Your task to perform on an android device: Open the Play Movies app and select the watchlist tab. Image 0: 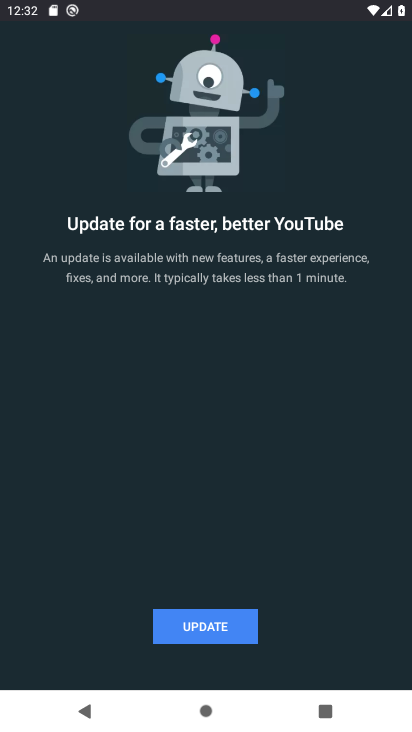
Step 0: drag from (188, 620) to (266, 169)
Your task to perform on an android device: Open the Play Movies app and select the watchlist tab. Image 1: 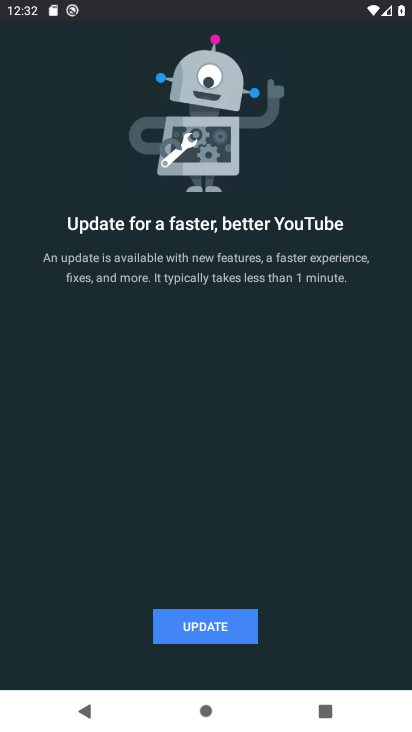
Step 1: press home button
Your task to perform on an android device: Open the Play Movies app and select the watchlist tab. Image 2: 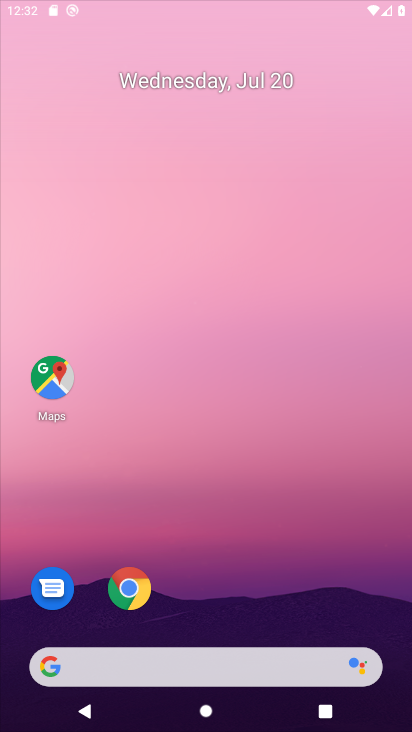
Step 2: drag from (302, 645) to (310, 360)
Your task to perform on an android device: Open the Play Movies app and select the watchlist tab. Image 3: 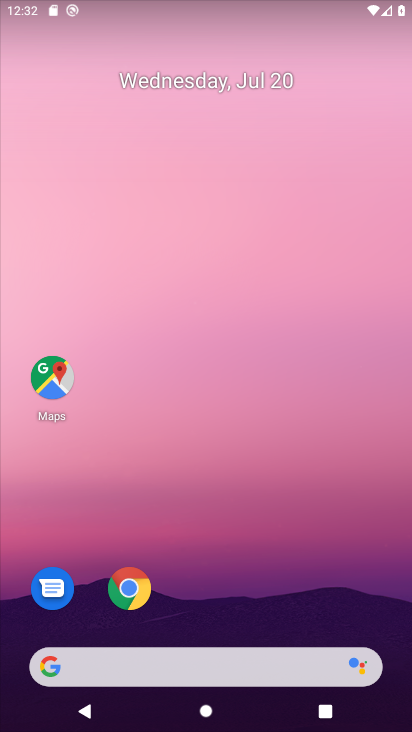
Step 3: drag from (260, 613) to (270, 125)
Your task to perform on an android device: Open the Play Movies app and select the watchlist tab. Image 4: 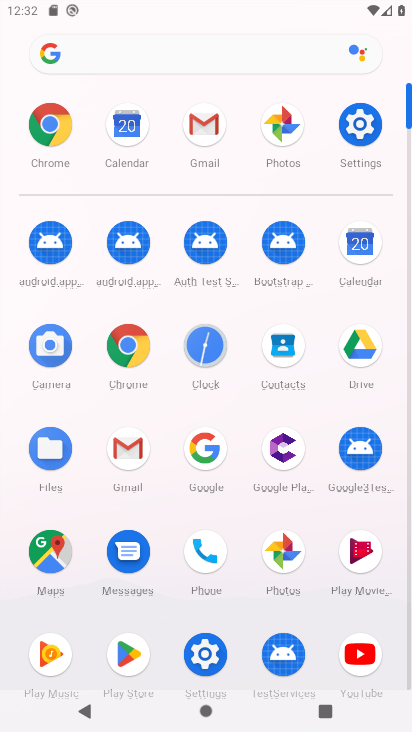
Step 4: click (355, 529)
Your task to perform on an android device: Open the Play Movies app and select the watchlist tab. Image 5: 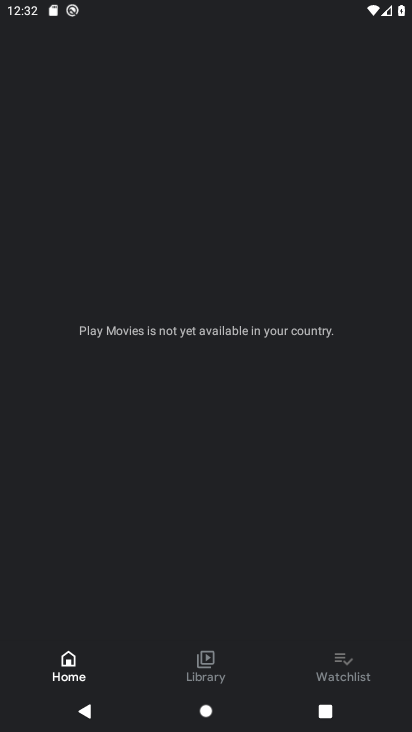
Step 5: click (339, 663)
Your task to perform on an android device: Open the Play Movies app and select the watchlist tab. Image 6: 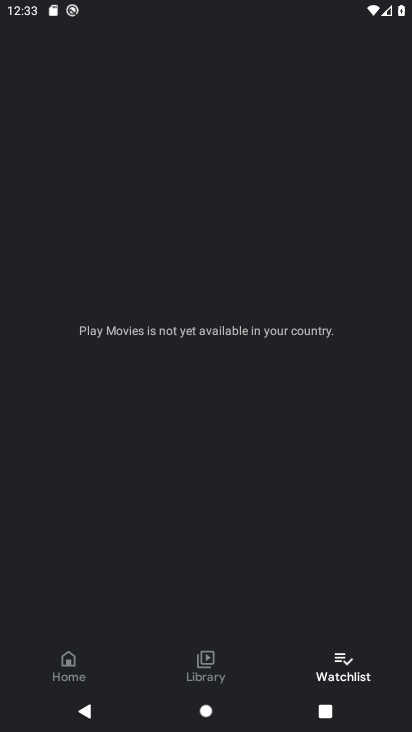
Step 6: task complete